Your task to perform on an android device: open a new tab in the chrome app Image 0: 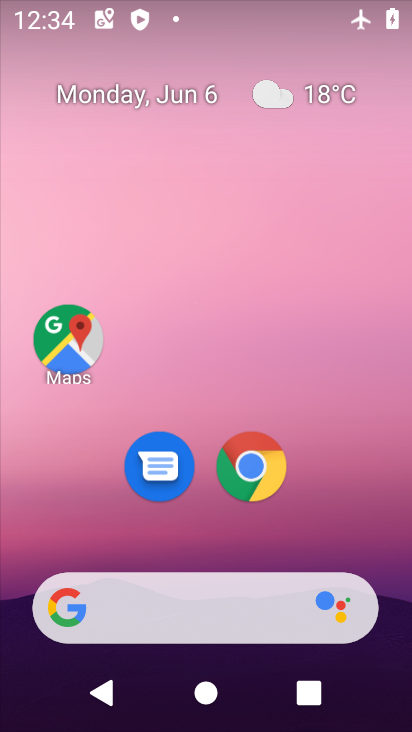
Step 0: drag from (368, 546) to (263, 61)
Your task to perform on an android device: open a new tab in the chrome app Image 1: 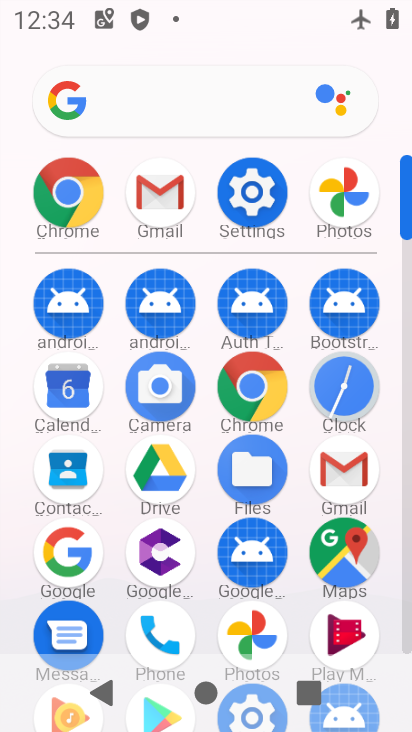
Step 1: drag from (14, 609) to (19, 250)
Your task to perform on an android device: open a new tab in the chrome app Image 2: 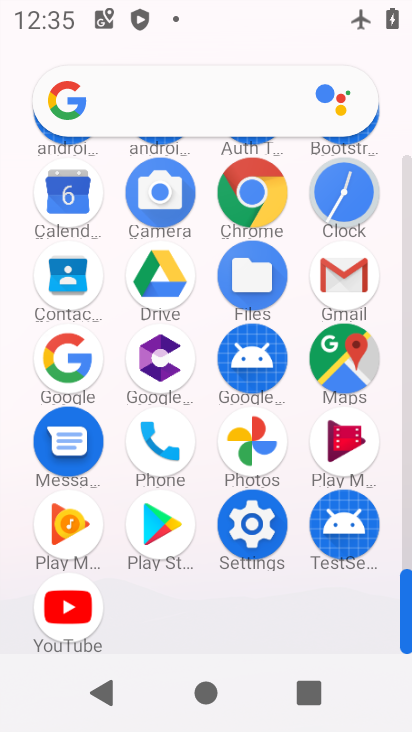
Step 2: click (244, 192)
Your task to perform on an android device: open a new tab in the chrome app Image 3: 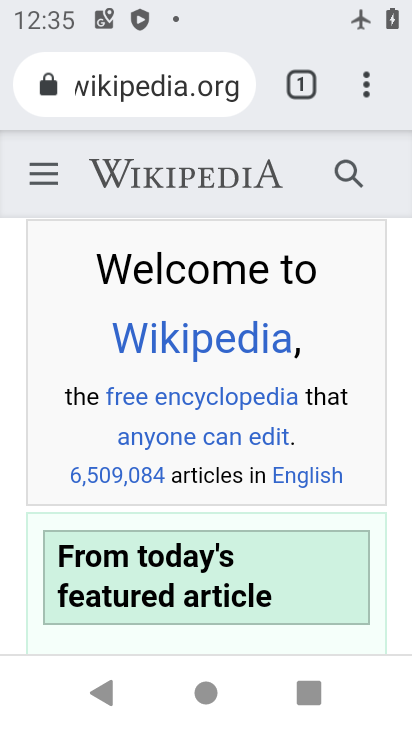
Step 3: task complete